Your task to perform on an android device: open chrome privacy settings Image 0: 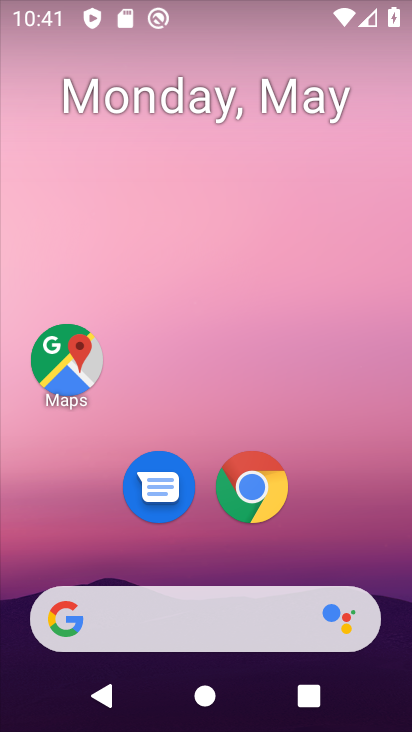
Step 0: drag from (386, 544) to (386, 241)
Your task to perform on an android device: open chrome privacy settings Image 1: 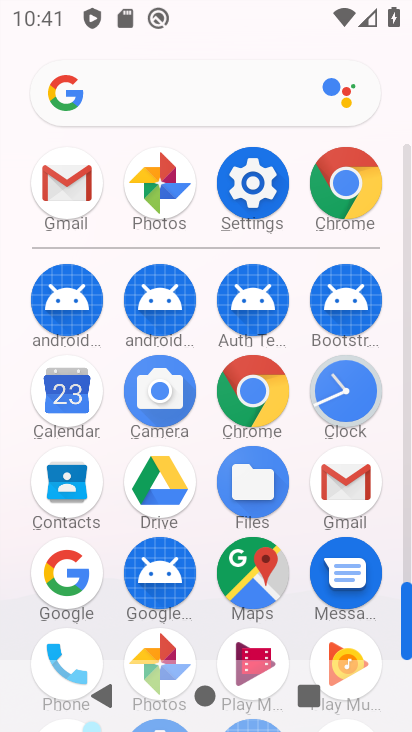
Step 1: click (264, 401)
Your task to perform on an android device: open chrome privacy settings Image 2: 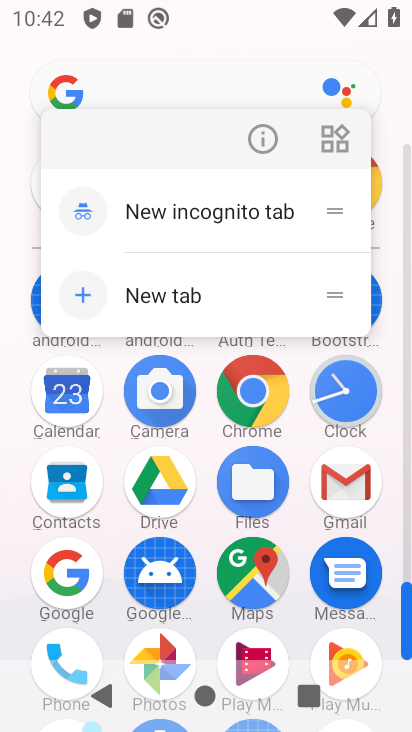
Step 2: click (271, 407)
Your task to perform on an android device: open chrome privacy settings Image 3: 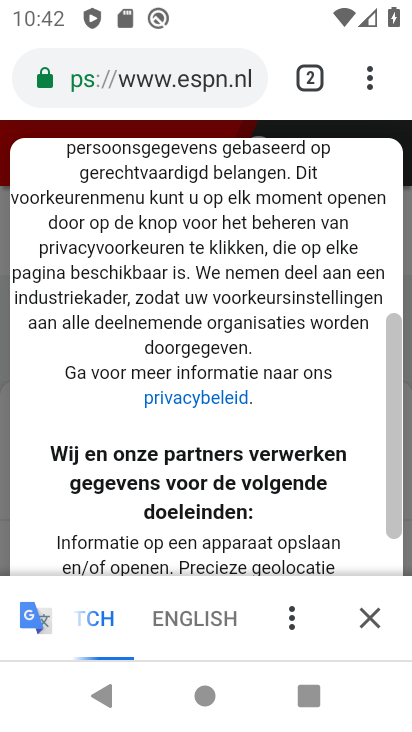
Step 3: click (374, 82)
Your task to perform on an android device: open chrome privacy settings Image 4: 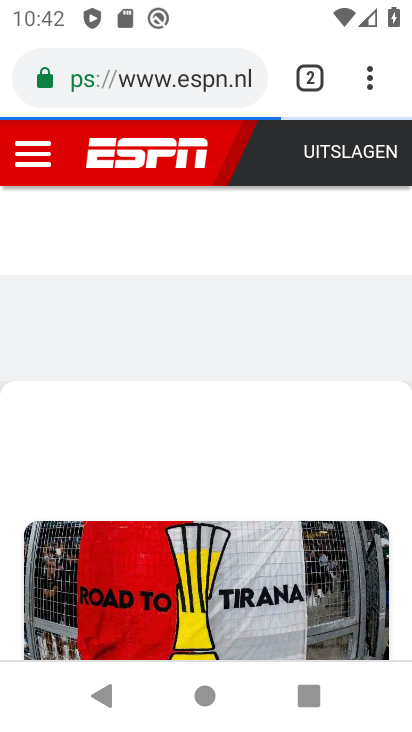
Step 4: click (374, 82)
Your task to perform on an android device: open chrome privacy settings Image 5: 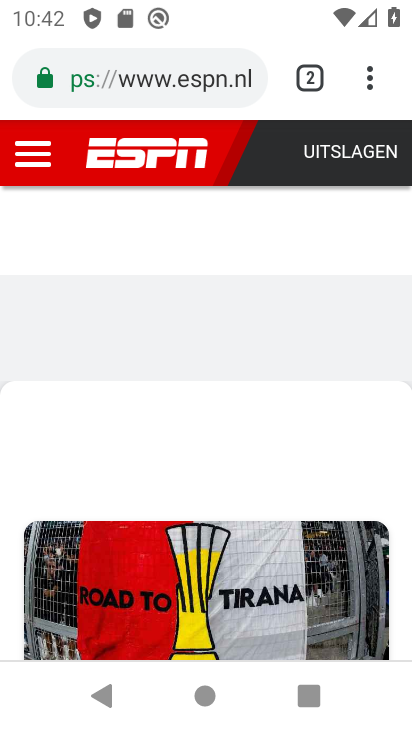
Step 5: click (376, 88)
Your task to perform on an android device: open chrome privacy settings Image 6: 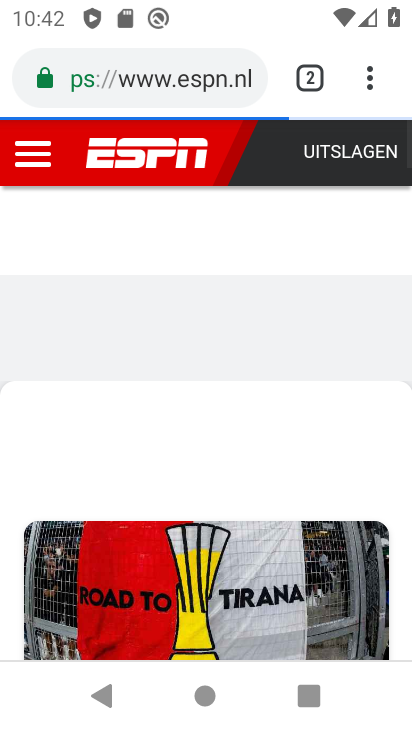
Step 6: click (376, 88)
Your task to perform on an android device: open chrome privacy settings Image 7: 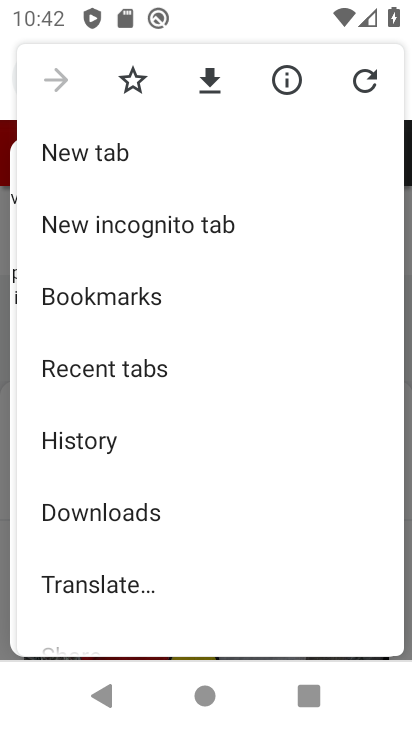
Step 7: drag from (353, 471) to (345, 343)
Your task to perform on an android device: open chrome privacy settings Image 8: 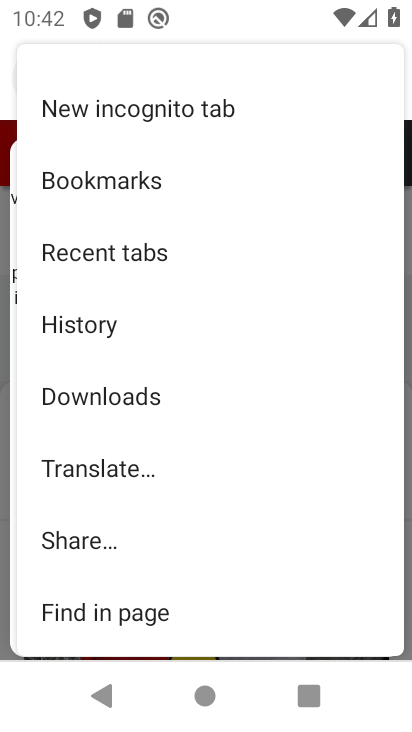
Step 8: drag from (337, 536) to (336, 453)
Your task to perform on an android device: open chrome privacy settings Image 9: 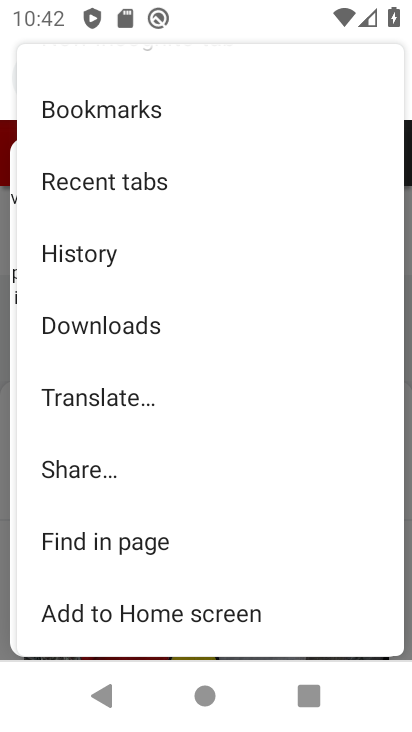
Step 9: drag from (270, 515) to (282, 400)
Your task to perform on an android device: open chrome privacy settings Image 10: 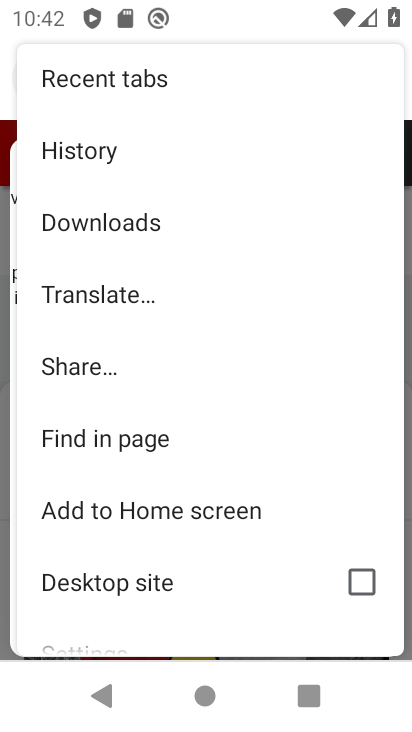
Step 10: drag from (274, 578) to (289, 464)
Your task to perform on an android device: open chrome privacy settings Image 11: 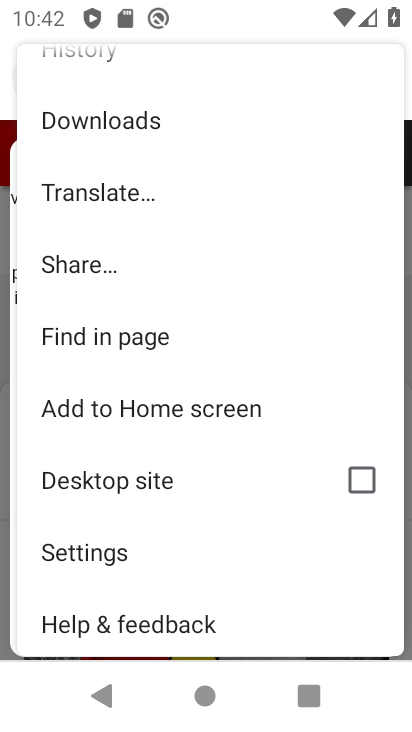
Step 11: drag from (288, 583) to (300, 492)
Your task to perform on an android device: open chrome privacy settings Image 12: 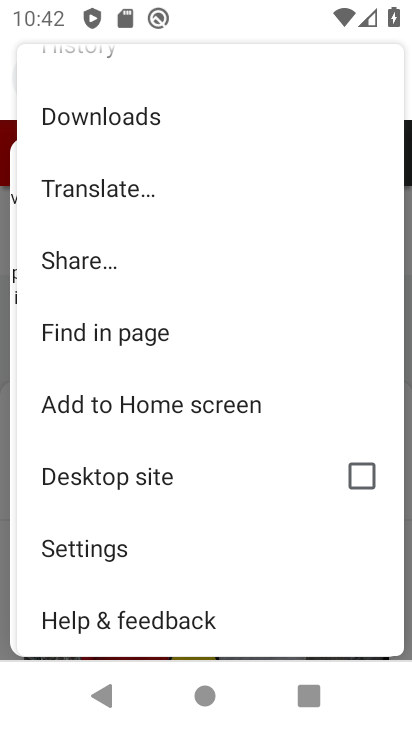
Step 12: click (131, 564)
Your task to perform on an android device: open chrome privacy settings Image 13: 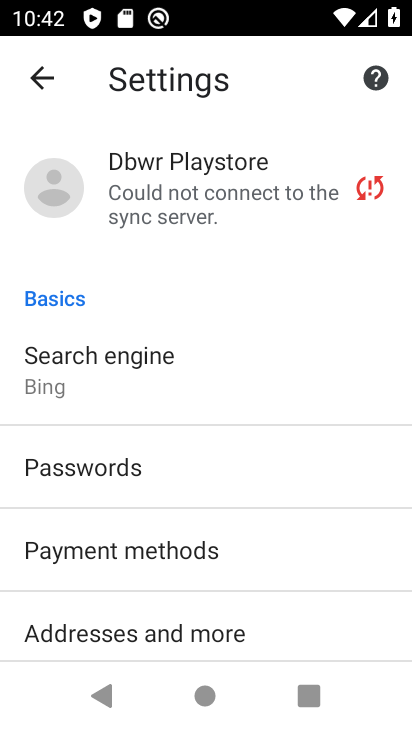
Step 13: drag from (277, 537) to (288, 482)
Your task to perform on an android device: open chrome privacy settings Image 14: 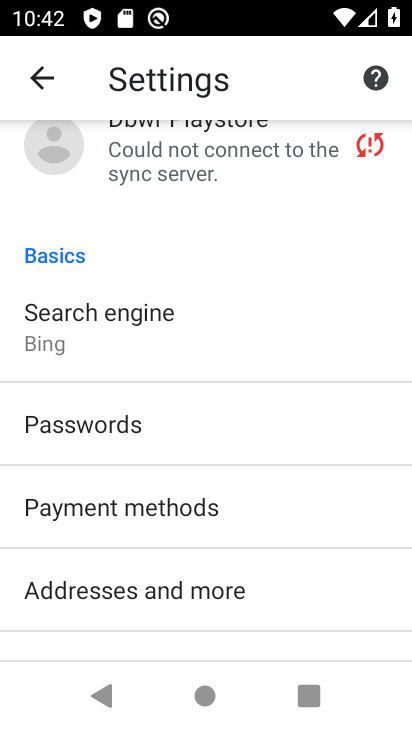
Step 14: drag from (308, 525) to (316, 481)
Your task to perform on an android device: open chrome privacy settings Image 15: 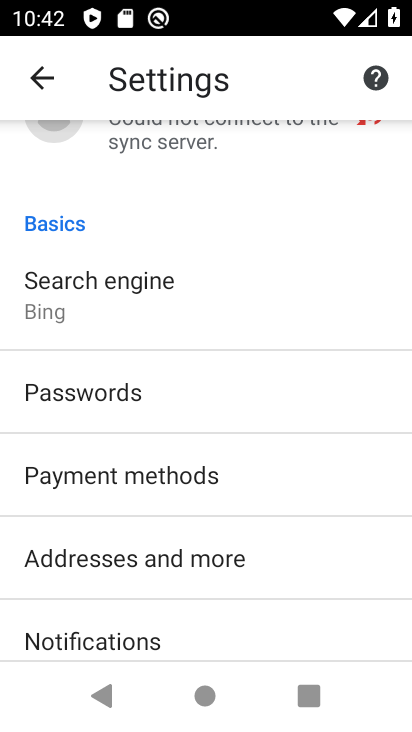
Step 15: drag from (314, 563) to (318, 503)
Your task to perform on an android device: open chrome privacy settings Image 16: 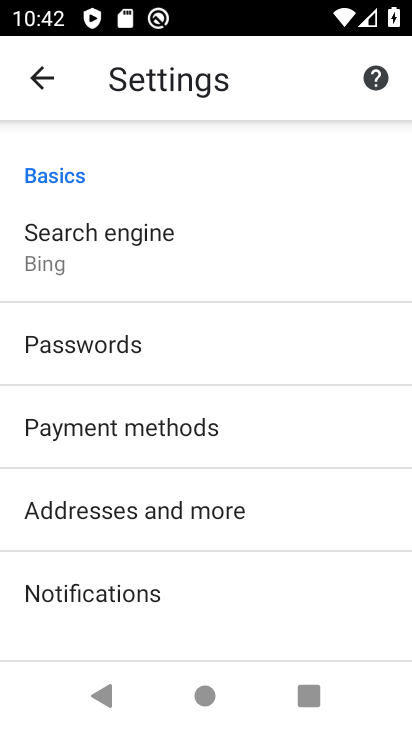
Step 16: drag from (323, 447) to (325, 494)
Your task to perform on an android device: open chrome privacy settings Image 17: 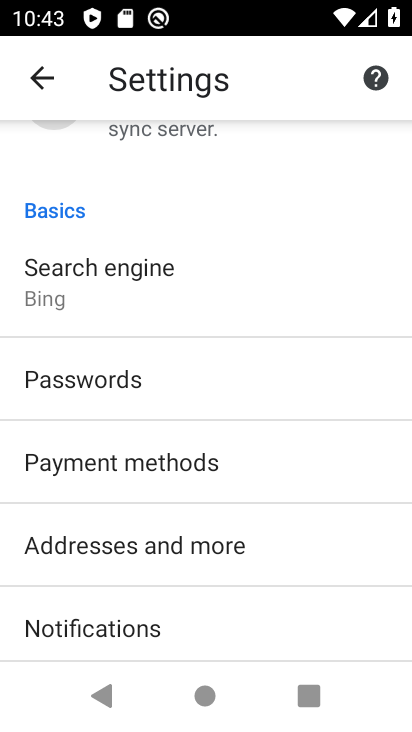
Step 17: drag from (315, 428) to (314, 598)
Your task to perform on an android device: open chrome privacy settings Image 18: 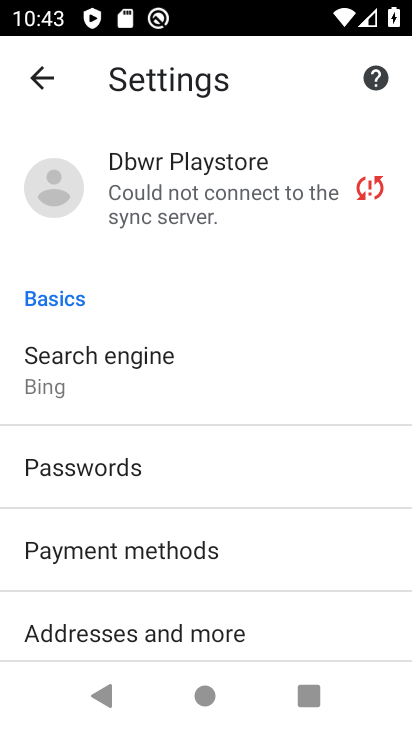
Step 18: drag from (313, 608) to (315, 482)
Your task to perform on an android device: open chrome privacy settings Image 19: 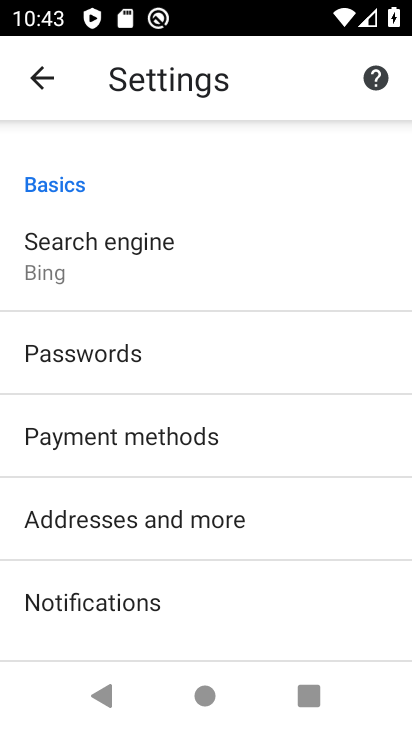
Step 19: drag from (329, 575) to (318, 443)
Your task to perform on an android device: open chrome privacy settings Image 20: 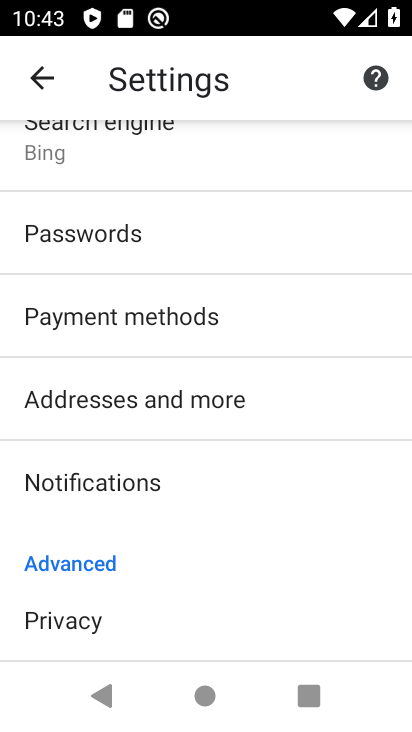
Step 20: click (232, 610)
Your task to perform on an android device: open chrome privacy settings Image 21: 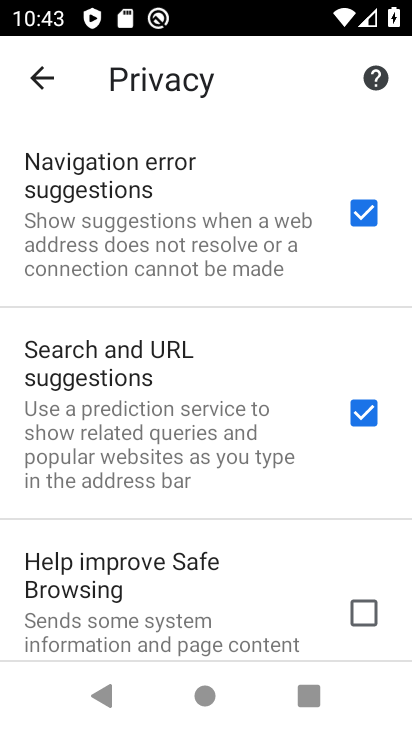
Step 21: task complete